Your task to perform on an android device: manage bookmarks in the chrome app Image 0: 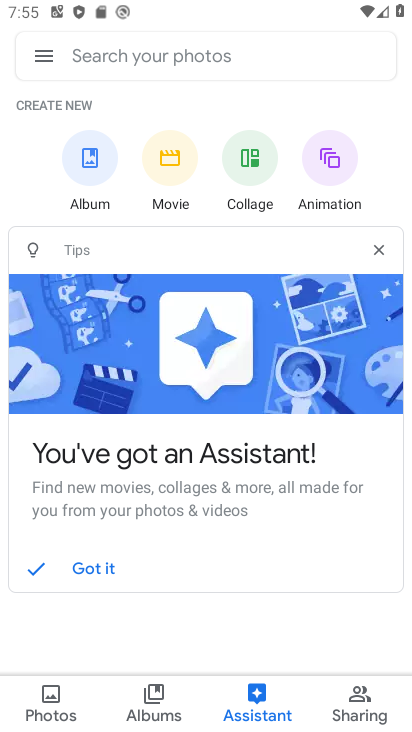
Step 0: press home button
Your task to perform on an android device: manage bookmarks in the chrome app Image 1: 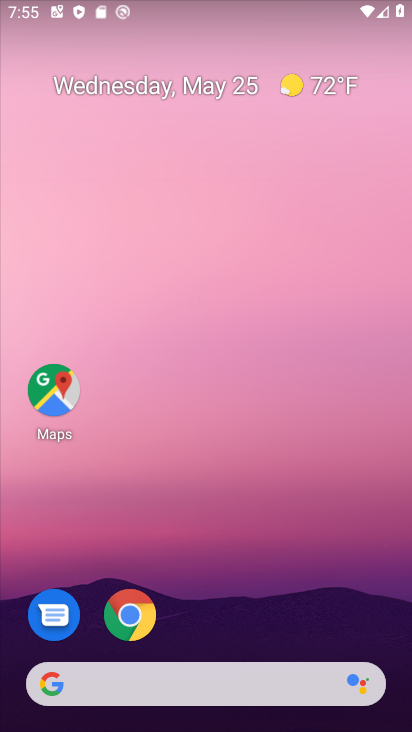
Step 1: click (135, 617)
Your task to perform on an android device: manage bookmarks in the chrome app Image 2: 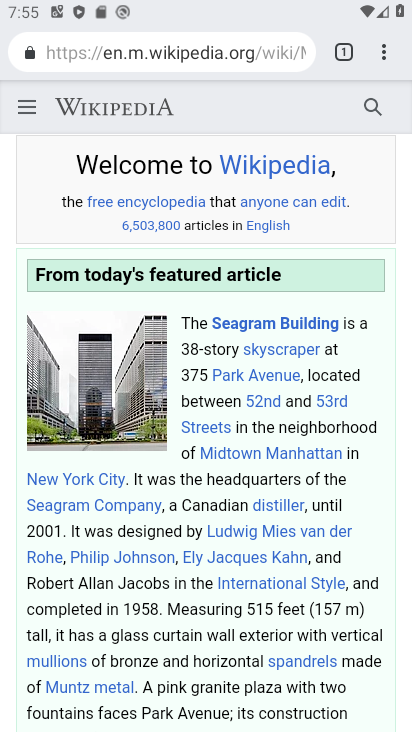
Step 2: click (383, 56)
Your task to perform on an android device: manage bookmarks in the chrome app Image 3: 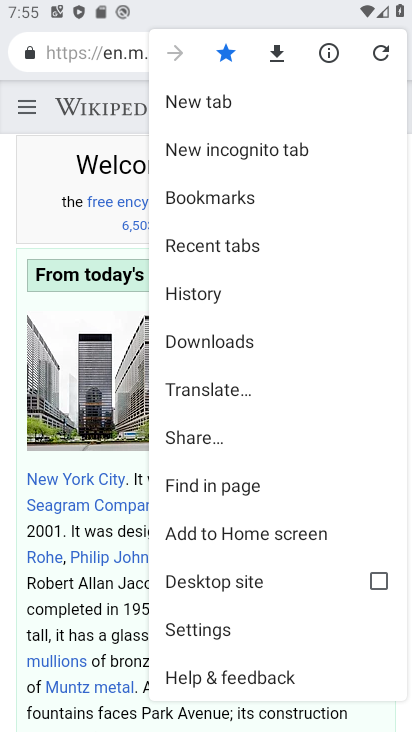
Step 3: click (241, 200)
Your task to perform on an android device: manage bookmarks in the chrome app Image 4: 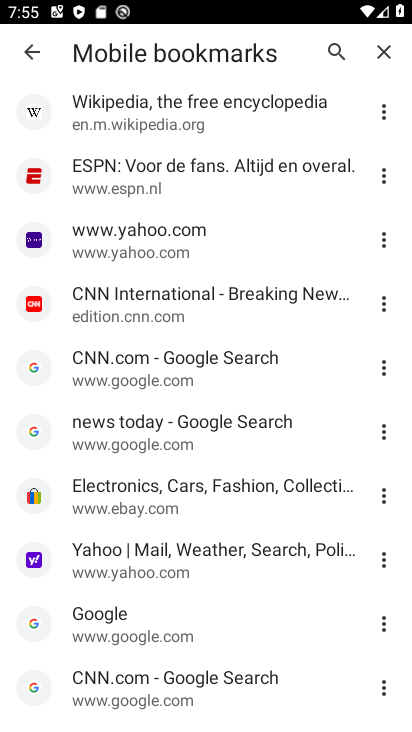
Step 4: click (379, 243)
Your task to perform on an android device: manage bookmarks in the chrome app Image 5: 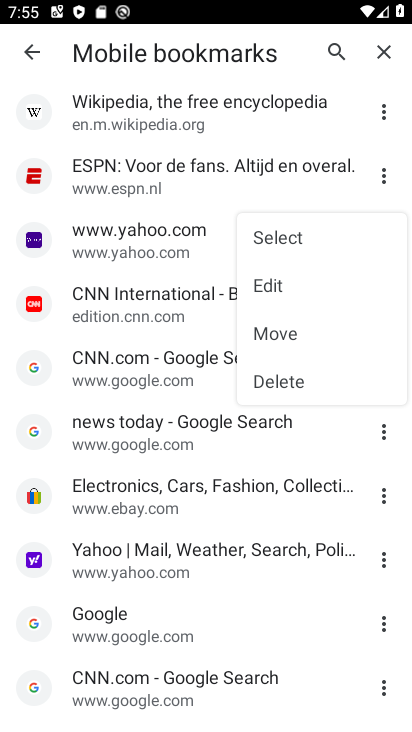
Step 5: click (298, 279)
Your task to perform on an android device: manage bookmarks in the chrome app Image 6: 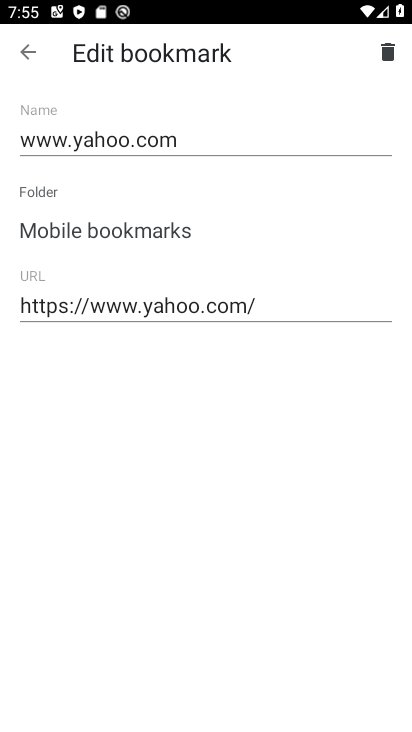
Step 6: click (26, 51)
Your task to perform on an android device: manage bookmarks in the chrome app Image 7: 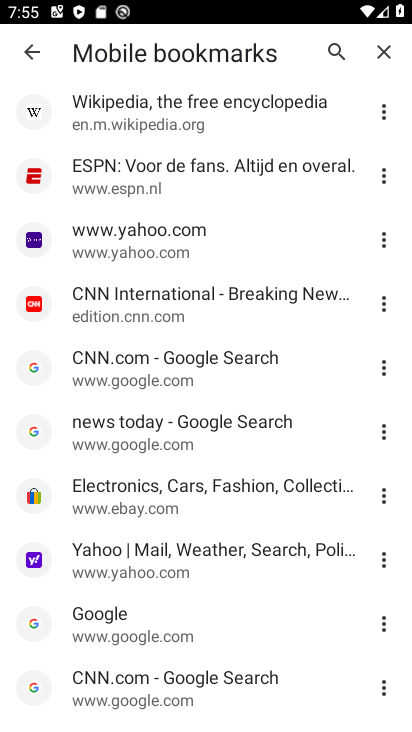
Step 7: task complete